Your task to perform on an android device: Do I have any events tomorrow? Image 0: 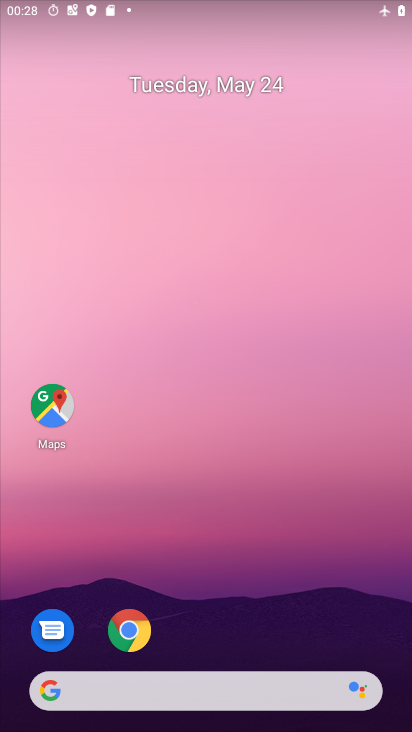
Step 0: drag from (246, 660) to (301, 16)
Your task to perform on an android device: Do I have any events tomorrow? Image 1: 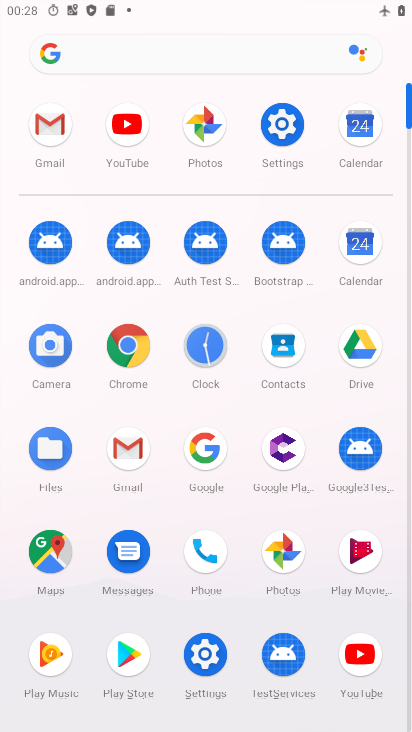
Step 1: click (354, 126)
Your task to perform on an android device: Do I have any events tomorrow? Image 2: 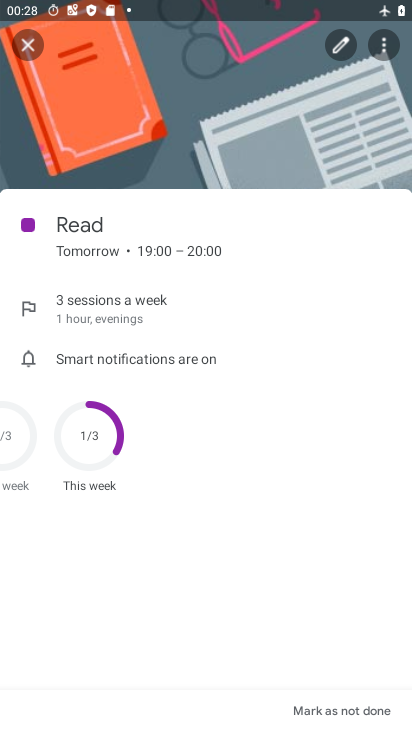
Step 2: click (32, 44)
Your task to perform on an android device: Do I have any events tomorrow? Image 3: 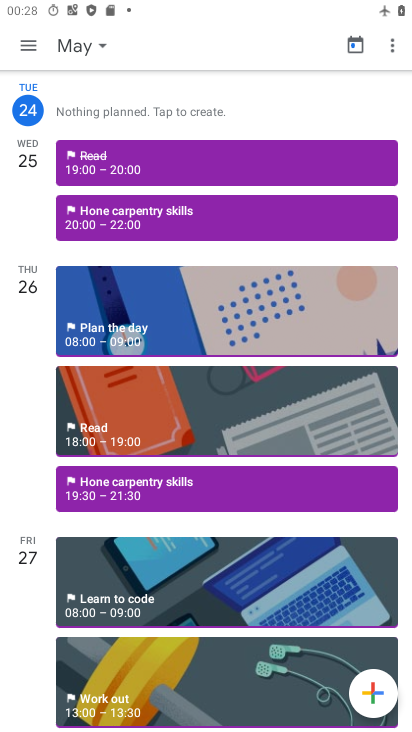
Step 3: click (171, 163)
Your task to perform on an android device: Do I have any events tomorrow? Image 4: 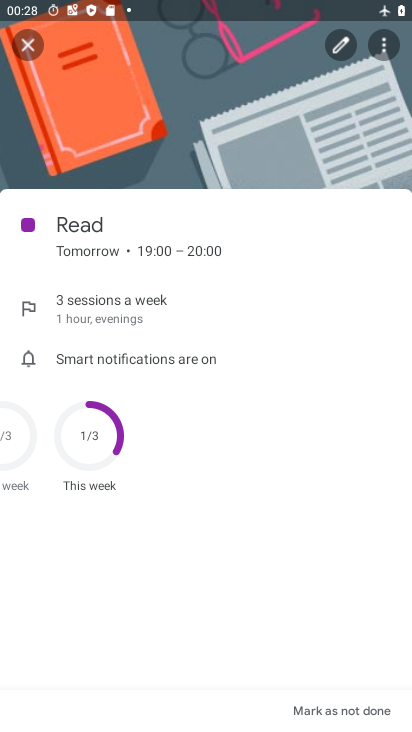
Step 4: click (29, 43)
Your task to perform on an android device: Do I have any events tomorrow? Image 5: 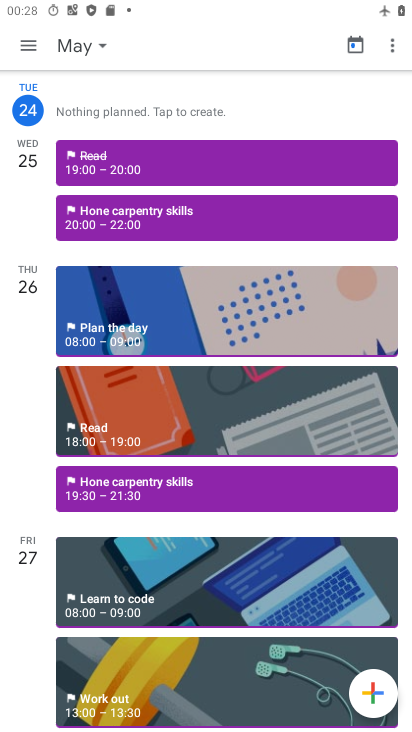
Step 5: click (24, 47)
Your task to perform on an android device: Do I have any events tomorrow? Image 6: 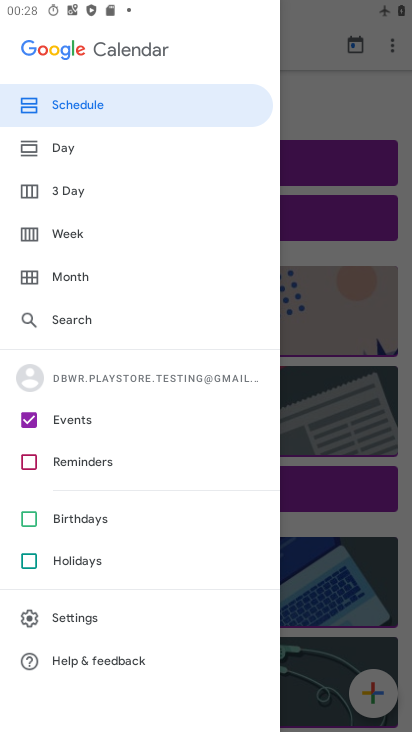
Step 6: click (46, 148)
Your task to perform on an android device: Do I have any events tomorrow? Image 7: 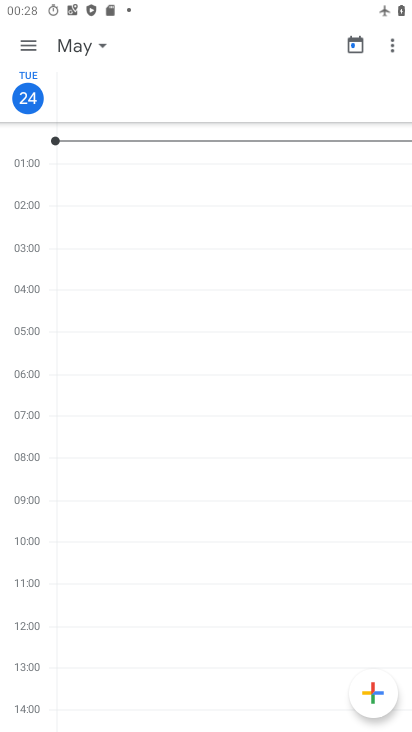
Step 7: click (104, 46)
Your task to perform on an android device: Do I have any events tomorrow? Image 8: 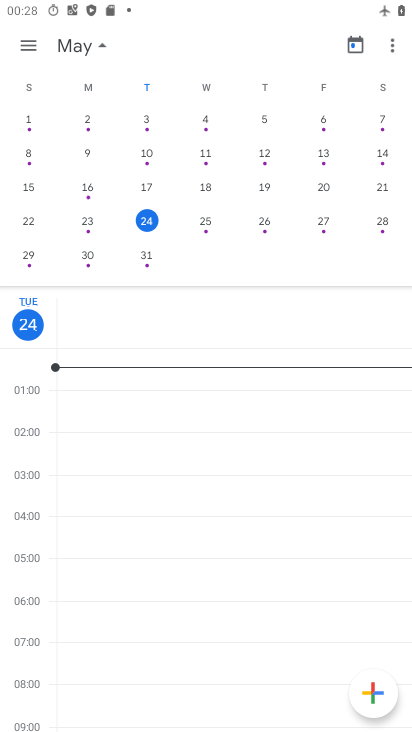
Step 8: click (200, 217)
Your task to perform on an android device: Do I have any events tomorrow? Image 9: 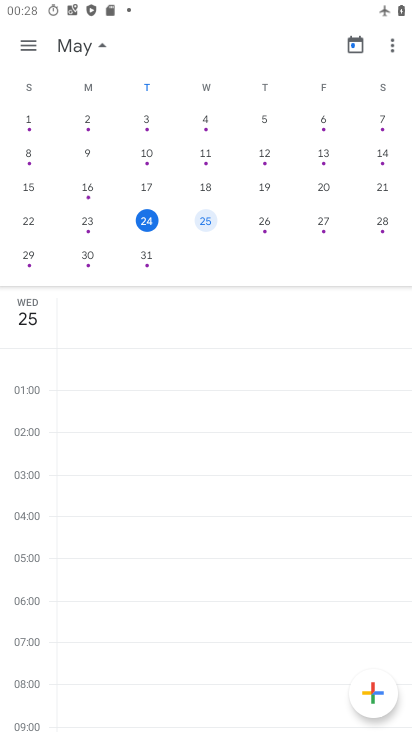
Step 9: task complete